Your task to perform on an android device: Go to ESPN.com Image 0: 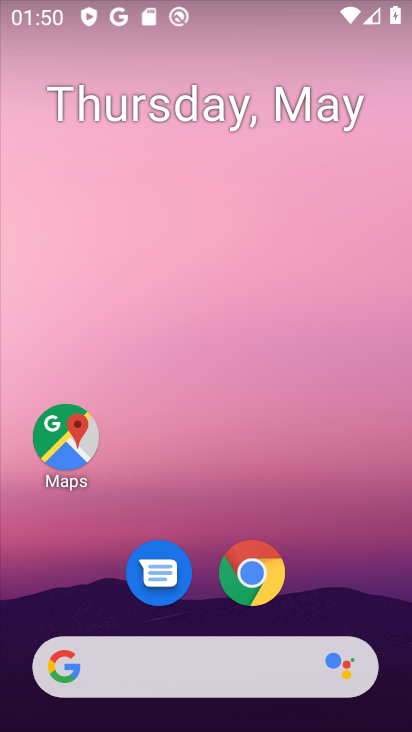
Step 0: click (240, 563)
Your task to perform on an android device: Go to ESPN.com Image 1: 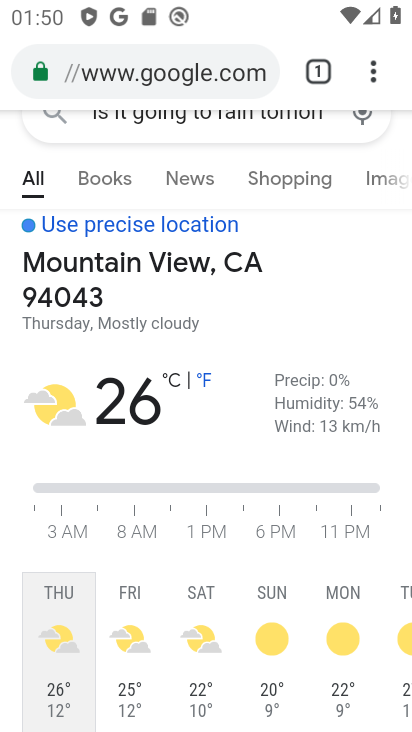
Step 1: click (363, 70)
Your task to perform on an android device: Go to ESPN.com Image 2: 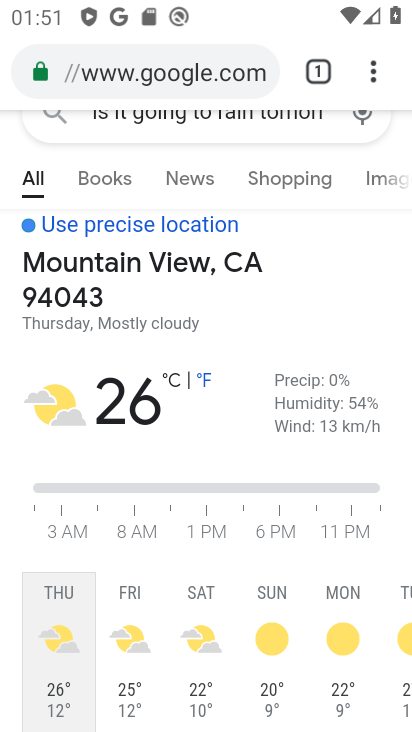
Step 2: click (375, 69)
Your task to perform on an android device: Go to ESPN.com Image 3: 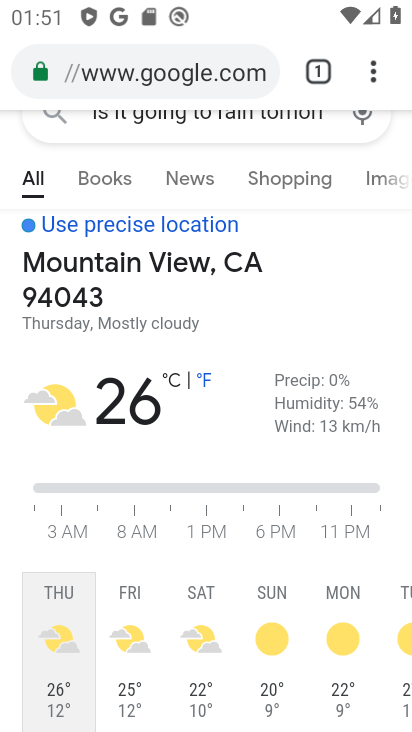
Step 3: click (371, 68)
Your task to perform on an android device: Go to ESPN.com Image 4: 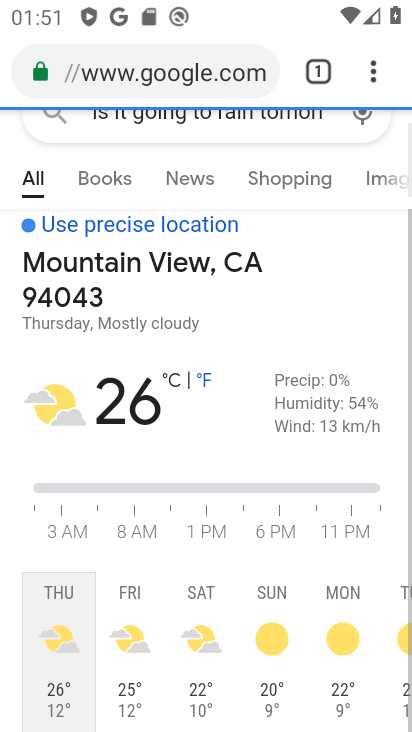
Step 4: click (363, 63)
Your task to perform on an android device: Go to ESPN.com Image 5: 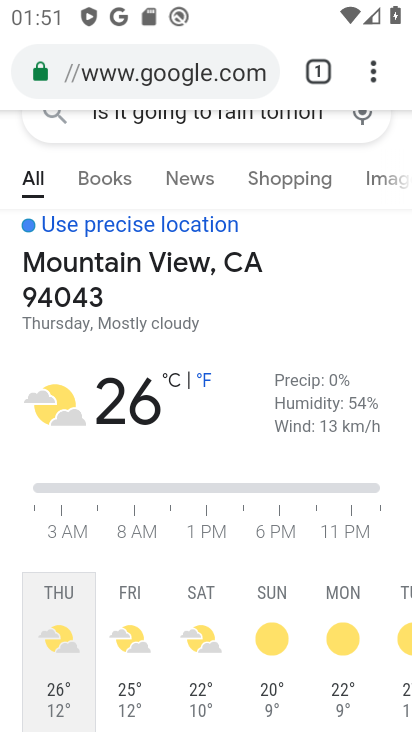
Step 5: click (365, 77)
Your task to perform on an android device: Go to ESPN.com Image 6: 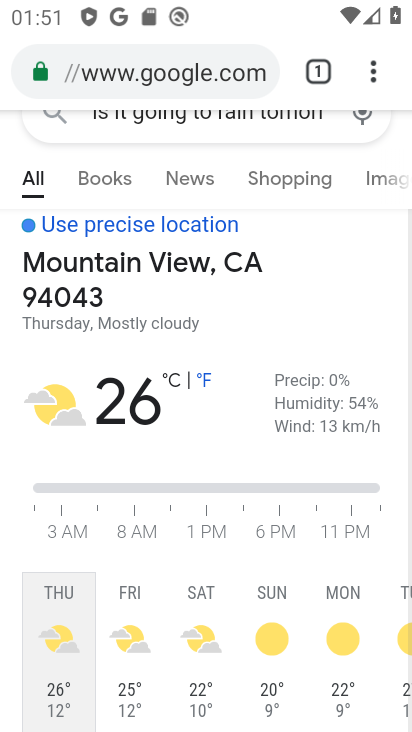
Step 6: click (366, 78)
Your task to perform on an android device: Go to ESPN.com Image 7: 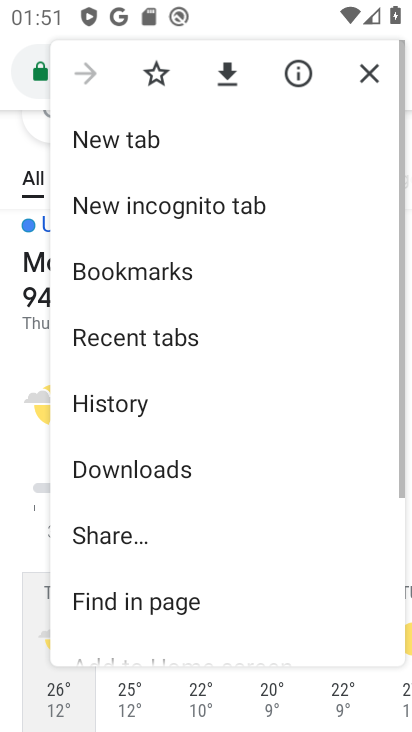
Step 7: click (159, 146)
Your task to perform on an android device: Go to ESPN.com Image 8: 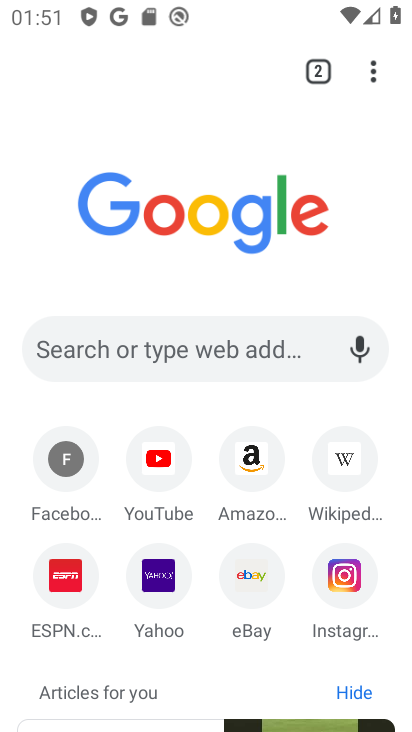
Step 8: click (57, 577)
Your task to perform on an android device: Go to ESPN.com Image 9: 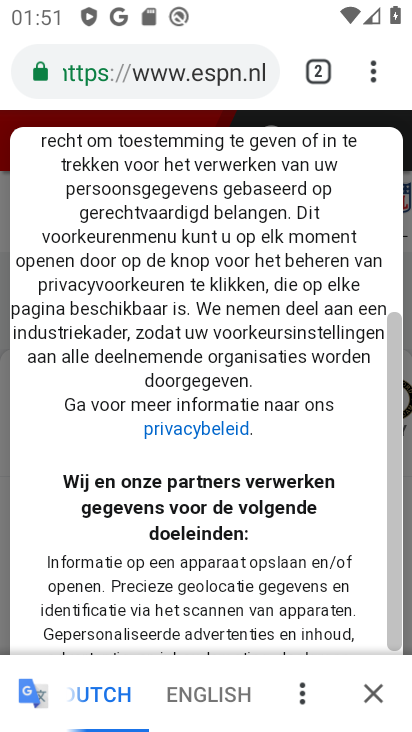
Step 9: task complete